Your task to perform on an android device: What's the weather going to be this weekend? Image 0: 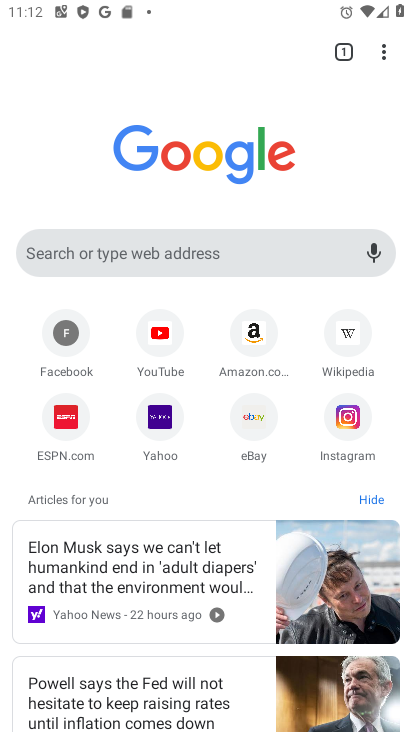
Step 0: press home button
Your task to perform on an android device: What's the weather going to be this weekend? Image 1: 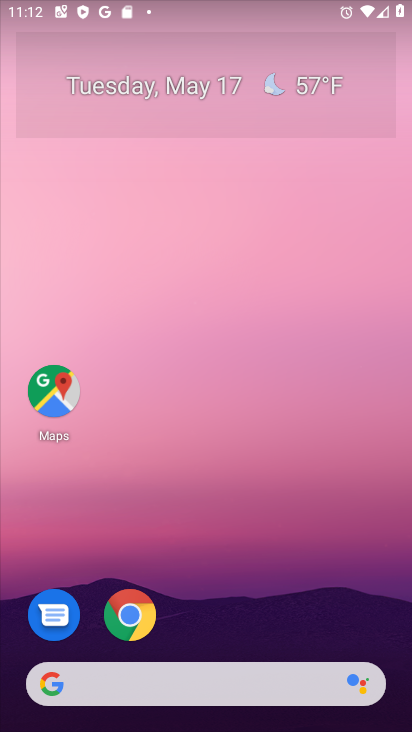
Step 1: click (324, 81)
Your task to perform on an android device: What's the weather going to be this weekend? Image 2: 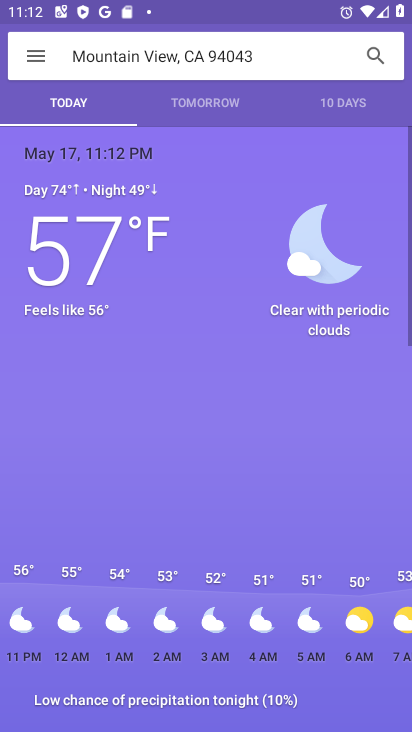
Step 2: click (349, 112)
Your task to perform on an android device: What's the weather going to be this weekend? Image 3: 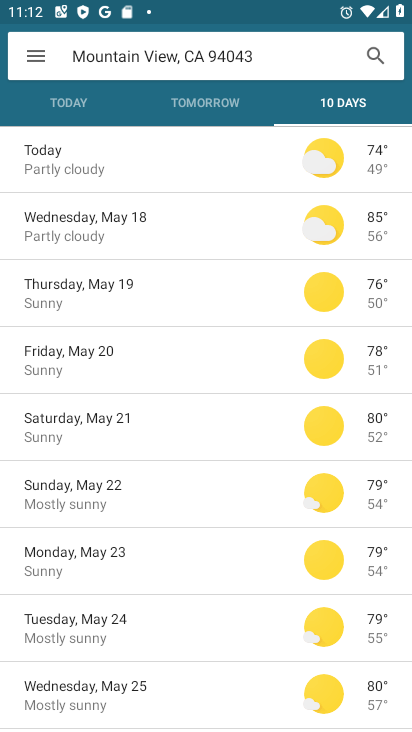
Step 3: task complete